Your task to perform on an android device: Go to internet settings Image 0: 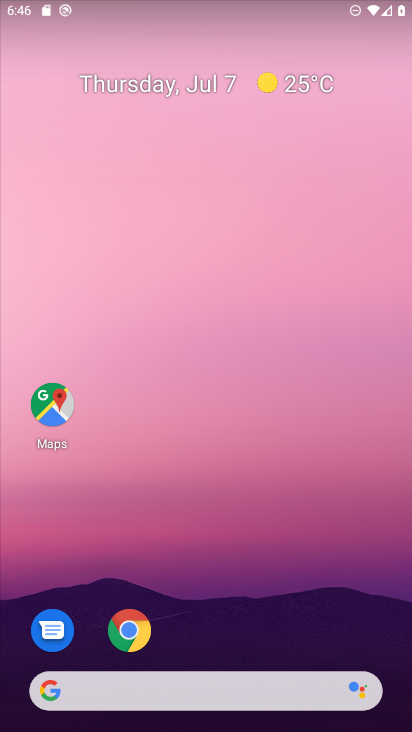
Step 0: drag from (211, 546) to (165, 131)
Your task to perform on an android device: Go to internet settings Image 1: 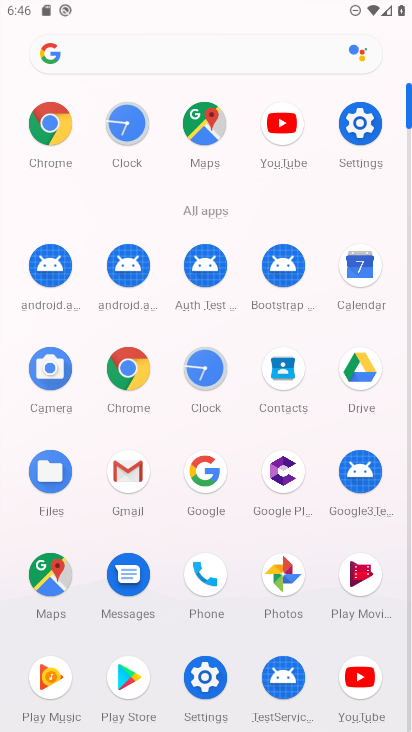
Step 1: click (365, 123)
Your task to perform on an android device: Go to internet settings Image 2: 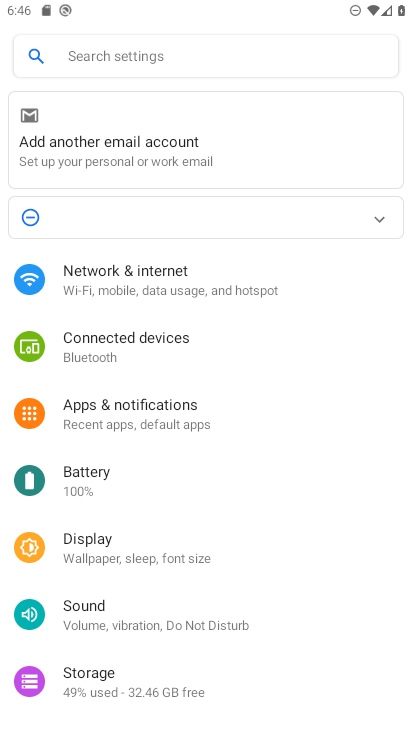
Step 2: click (136, 272)
Your task to perform on an android device: Go to internet settings Image 3: 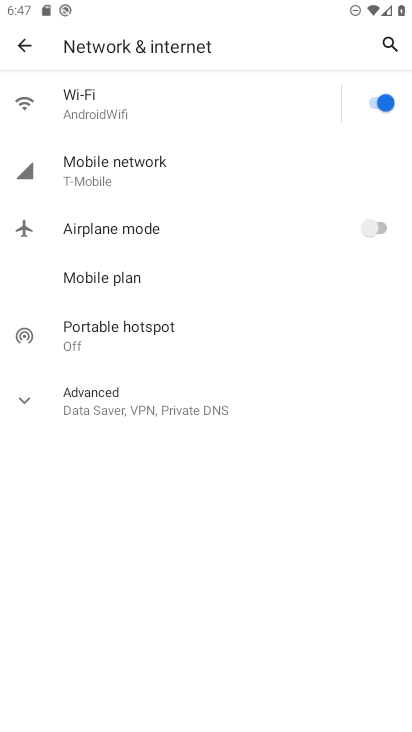
Step 3: click (124, 163)
Your task to perform on an android device: Go to internet settings Image 4: 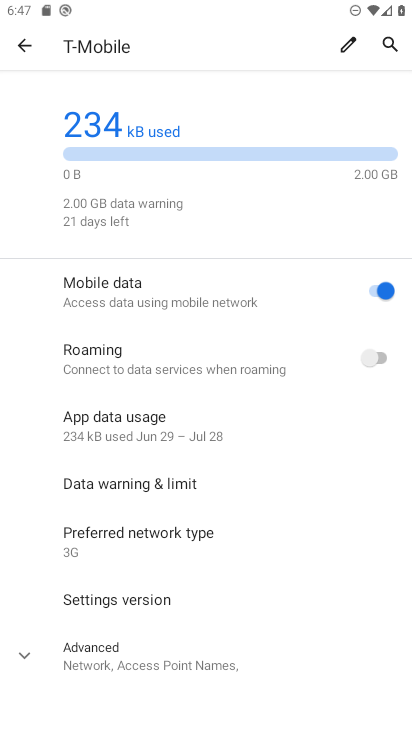
Step 4: task complete